Your task to perform on an android device: Play the last video I watched on Youtube Image 0: 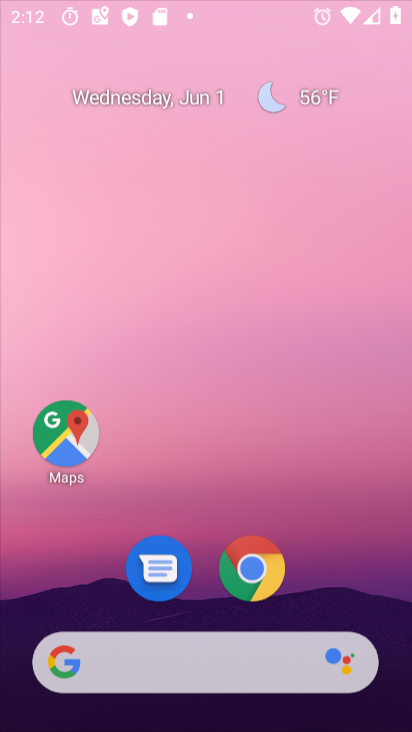
Step 0: drag from (317, 525) to (277, 7)
Your task to perform on an android device: Play the last video I watched on Youtube Image 1: 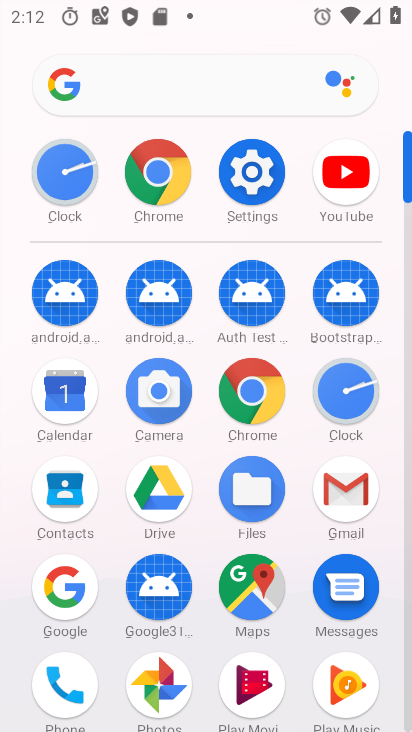
Step 1: drag from (396, 557) to (383, 218)
Your task to perform on an android device: Play the last video I watched on Youtube Image 2: 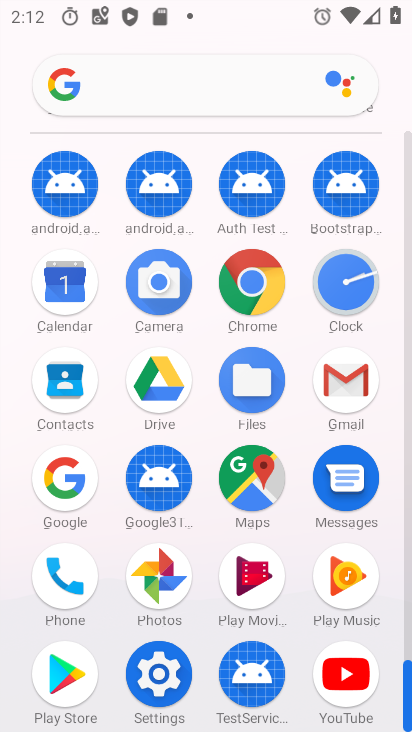
Step 2: click (345, 693)
Your task to perform on an android device: Play the last video I watched on Youtube Image 3: 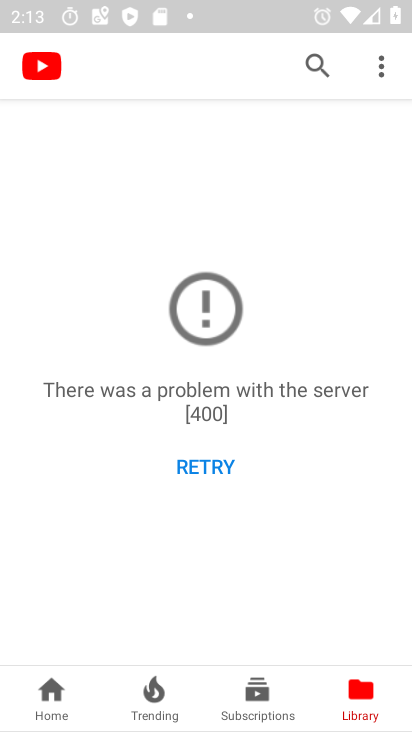
Step 3: click (214, 478)
Your task to perform on an android device: Play the last video I watched on Youtube Image 4: 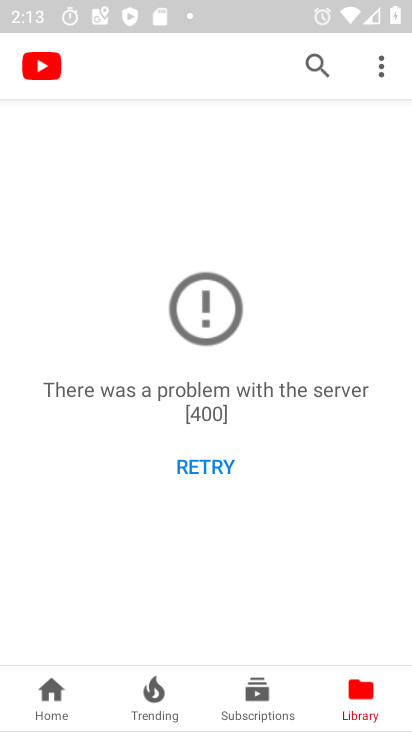
Step 4: task complete